Your task to perform on an android device: Go to display settings Image 0: 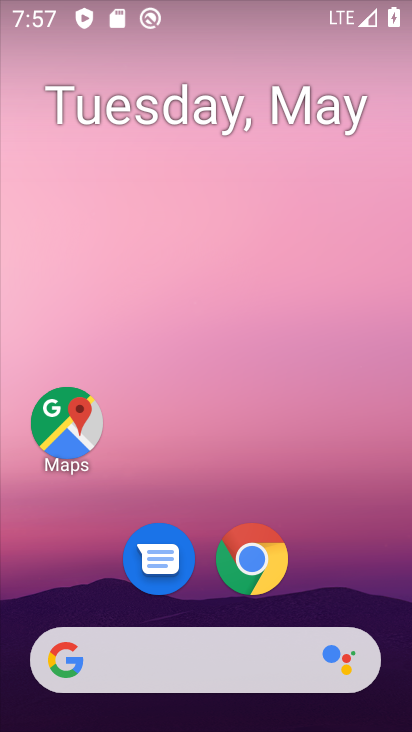
Step 0: drag from (300, 568) to (165, 54)
Your task to perform on an android device: Go to display settings Image 1: 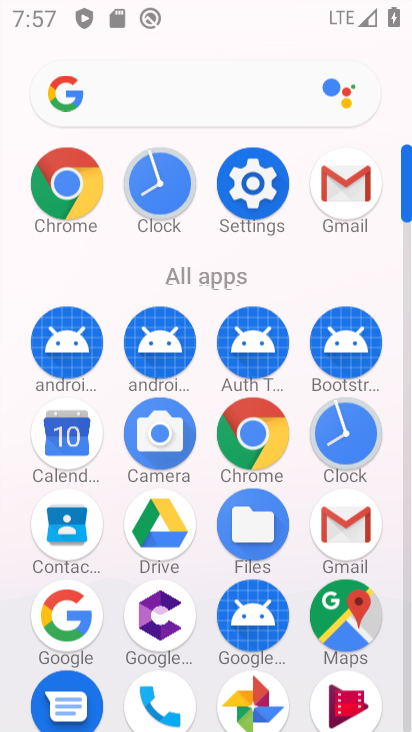
Step 1: drag from (325, 465) to (178, 49)
Your task to perform on an android device: Go to display settings Image 2: 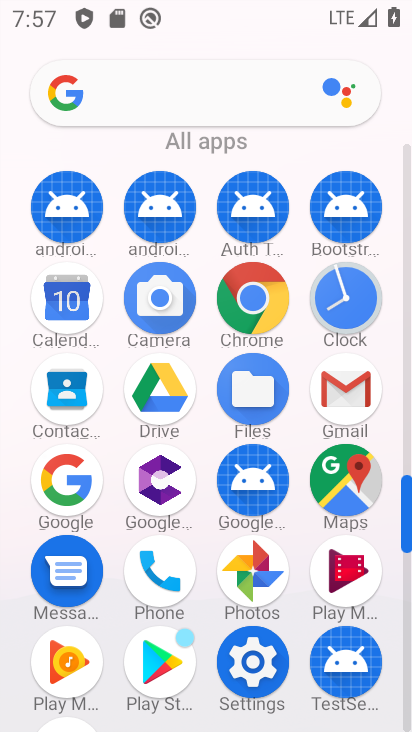
Step 2: click (252, 668)
Your task to perform on an android device: Go to display settings Image 3: 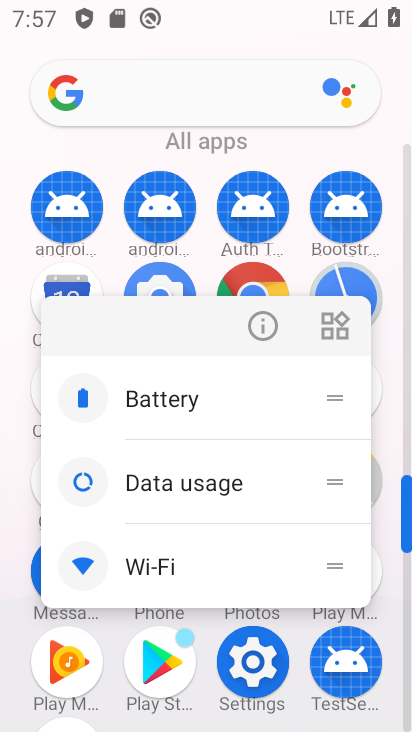
Step 3: click (252, 668)
Your task to perform on an android device: Go to display settings Image 4: 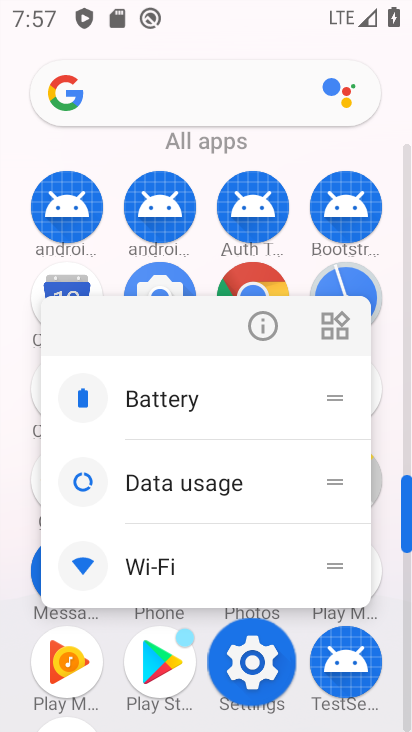
Step 4: click (252, 668)
Your task to perform on an android device: Go to display settings Image 5: 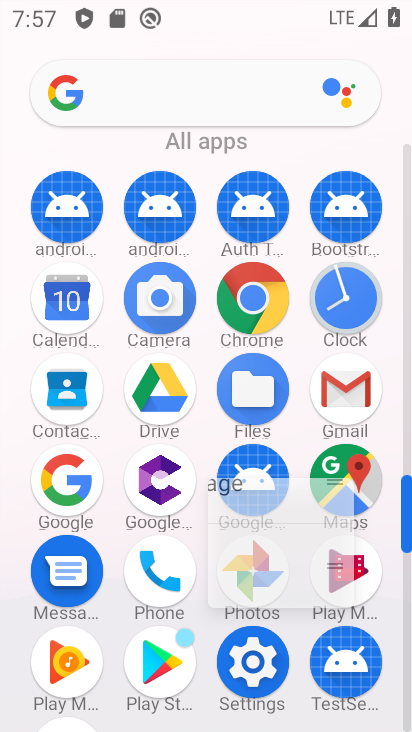
Step 5: click (252, 665)
Your task to perform on an android device: Go to display settings Image 6: 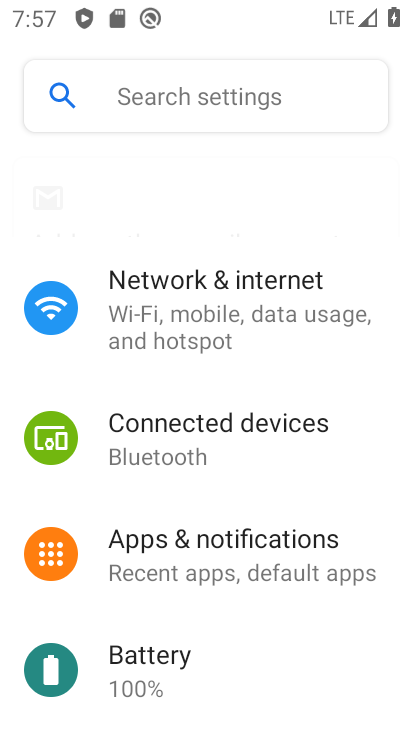
Step 6: click (252, 665)
Your task to perform on an android device: Go to display settings Image 7: 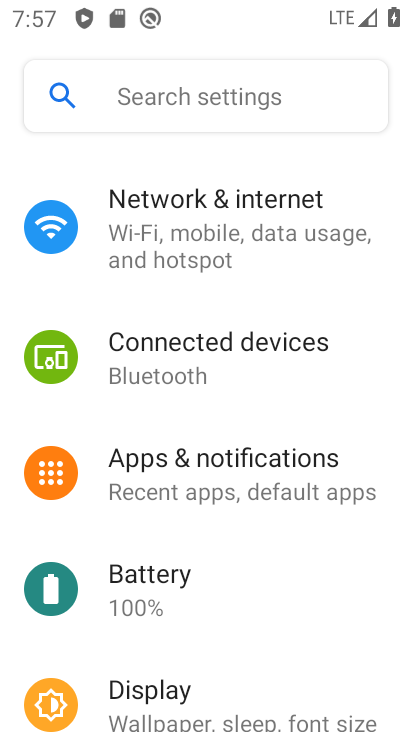
Step 7: click (252, 665)
Your task to perform on an android device: Go to display settings Image 8: 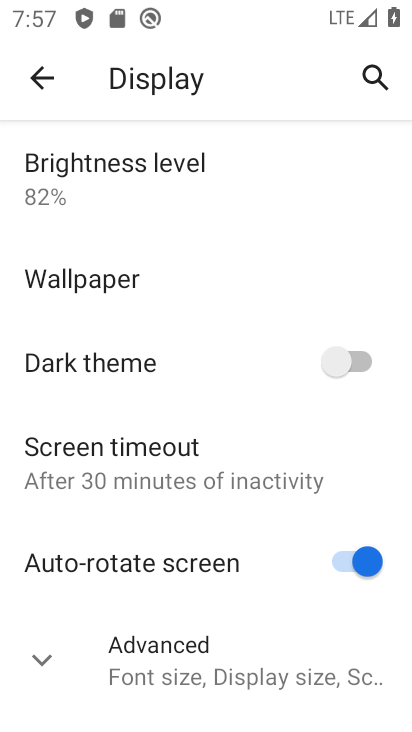
Step 8: click (35, 71)
Your task to perform on an android device: Go to display settings Image 9: 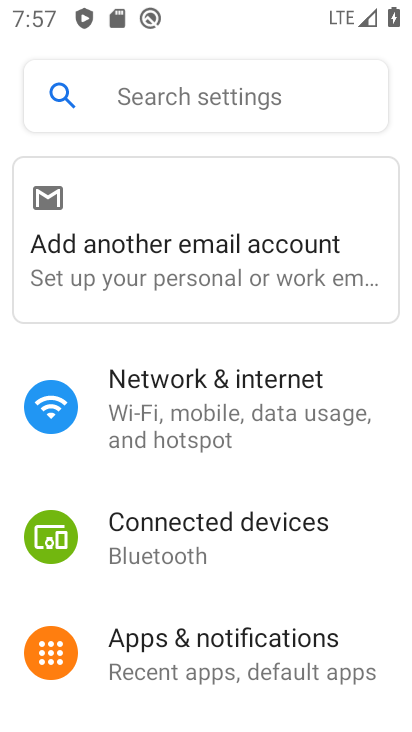
Step 9: drag from (207, 558) to (214, 270)
Your task to perform on an android device: Go to display settings Image 10: 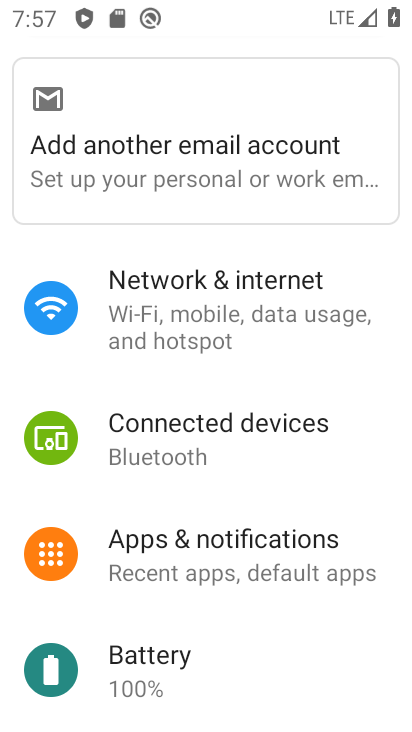
Step 10: drag from (226, 529) to (220, 138)
Your task to perform on an android device: Go to display settings Image 11: 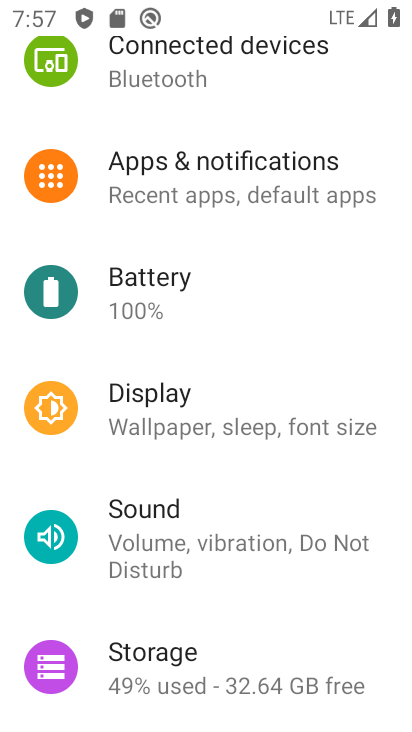
Step 11: drag from (232, 528) to (288, 158)
Your task to perform on an android device: Go to display settings Image 12: 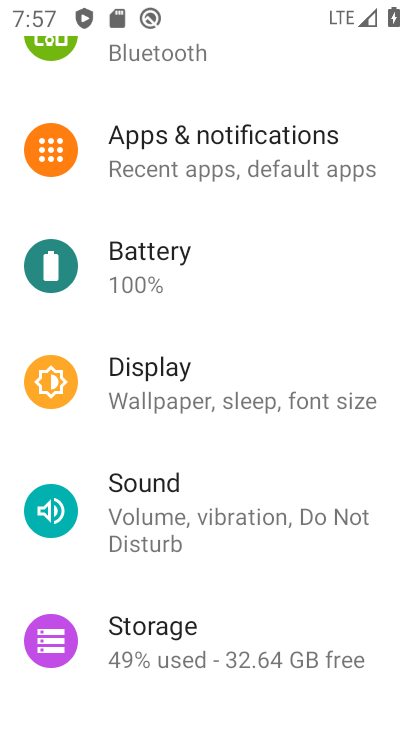
Step 12: click (168, 374)
Your task to perform on an android device: Go to display settings Image 13: 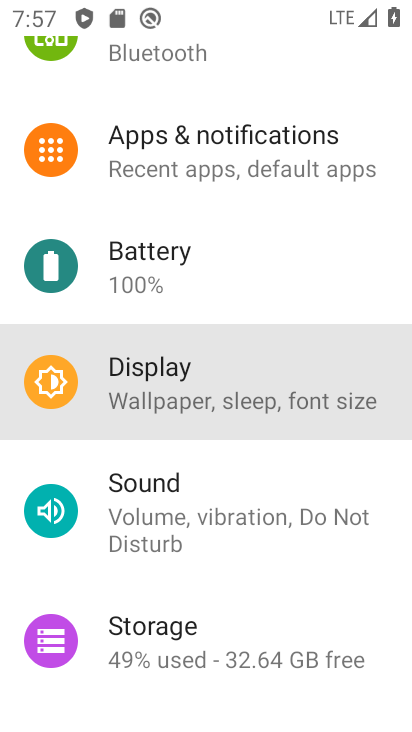
Step 13: click (168, 375)
Your task to perform on an android device: Go to display settings Image 14: 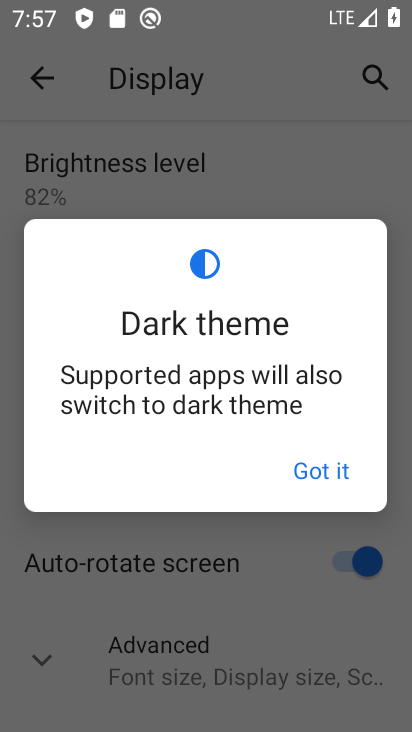
Step 14: click (324, 169)
Your task to perform on an android device: Go to display settings Image 15: 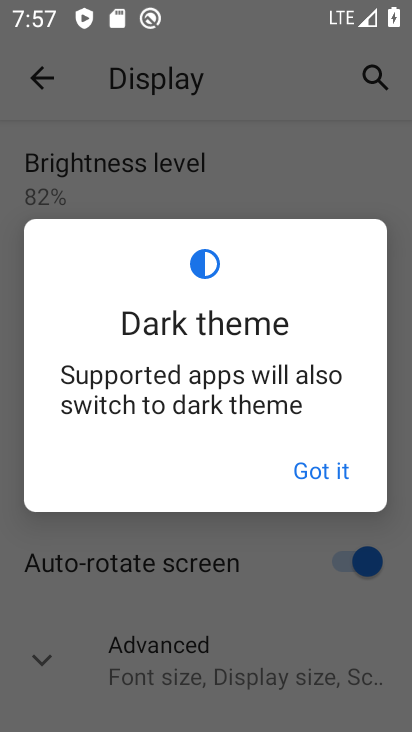
Step 15: click (324, 169)
Your task to perform on an android device: Go to display settings Image 16: 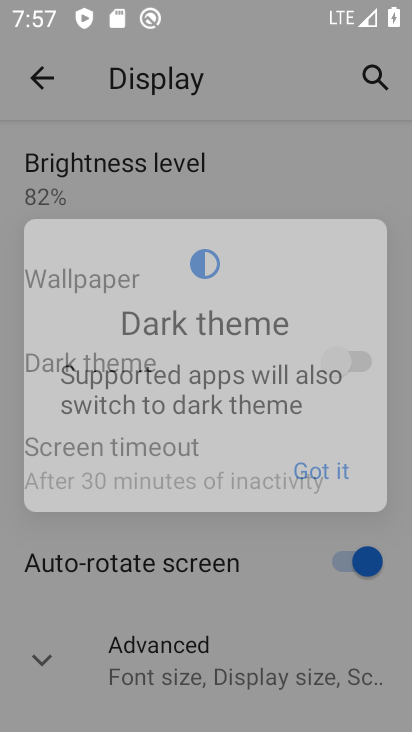
Step 16: click (324, 169)
Your task to perform on an android device: Go to display settings Image 17: 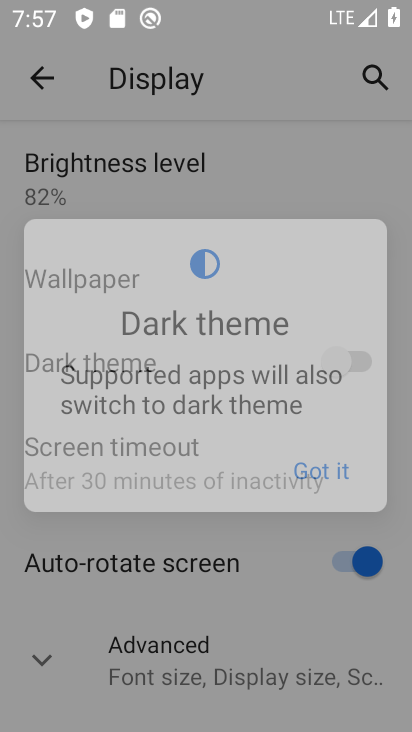
Step 17: click (324, 169)
Your task to perform on an android device: Go to display settings Image 18: 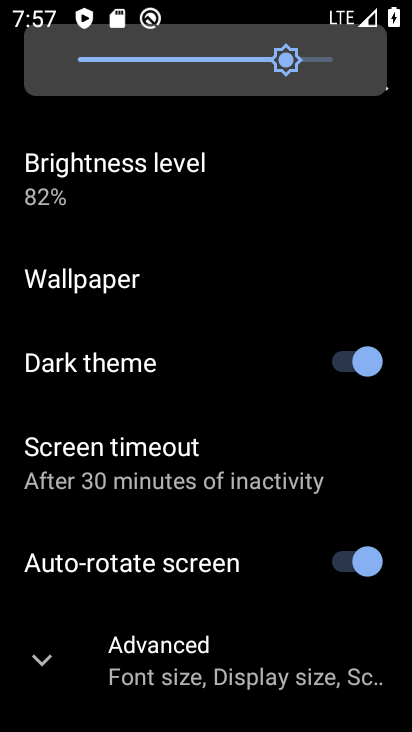
Step 18: click (324, 169)
Your task to perform on an android device: Go to display settings Image 19: 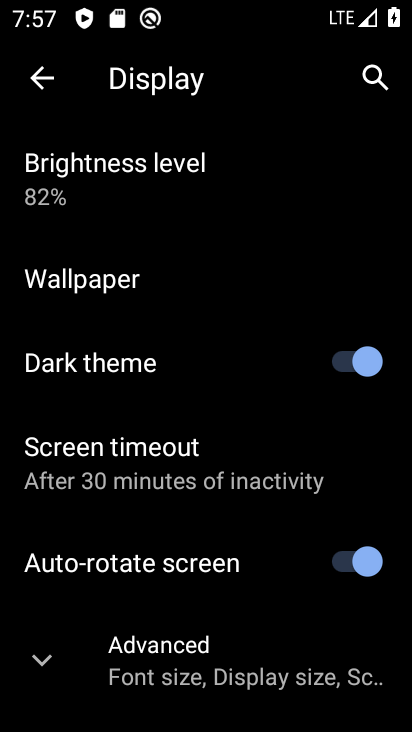
Step 19: click (368, 357)
Your task to perform on an android device: Go to display settings Image 20: 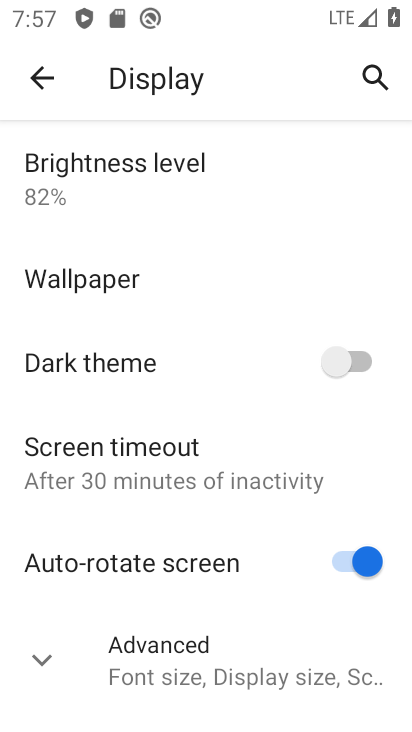
Step 20: task complete